Your task to perform on an android device: Show me productivity apps on the Play Store Image 0: 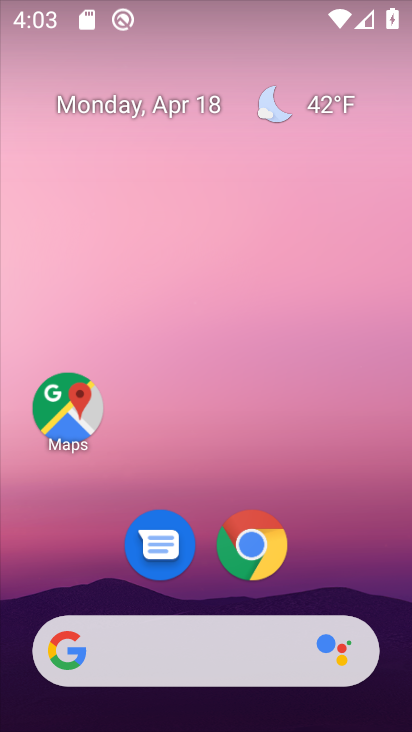
Step 0: drag from (336, 547) to (333, 166)
Your task to perform on an android device: Show me productivity apps on the Play Store Image 1: 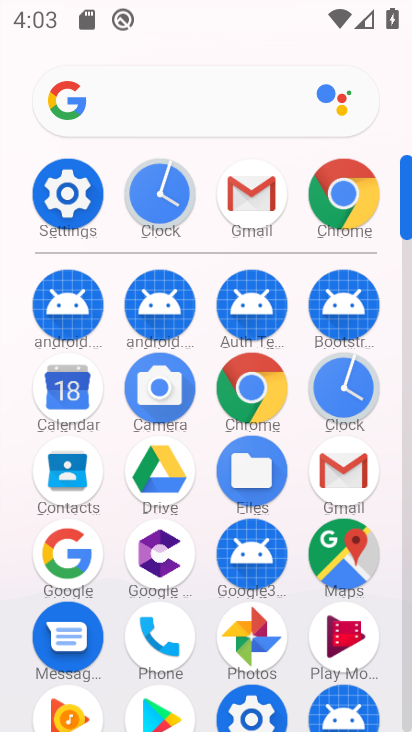
Step 1: drag from (197, 538) to (213, 338)
Your task to perform on an android device: Show me productivity apps on the Play Store Image 2: 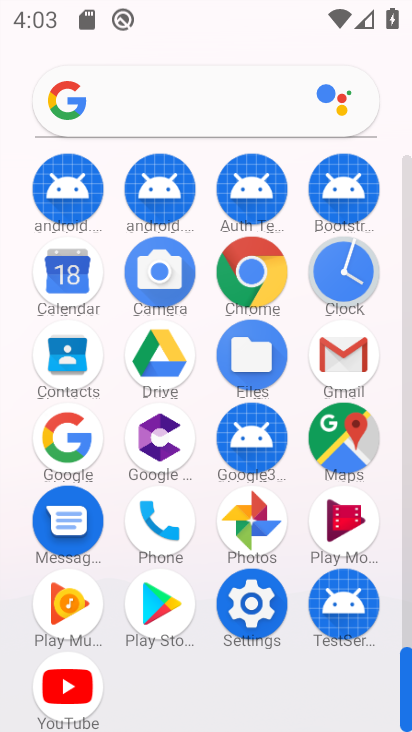
Step 2: click (161, 614)
Your task to perform on an android device: Show me productivity apps on the Play Store Image 3: 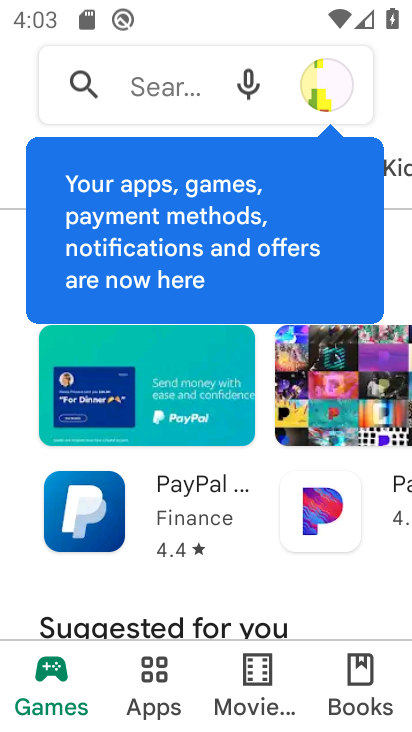
Step 3: click (154, 80)
Your task to perform on an android device: Show me productivity apps on the Play Store Image 4: 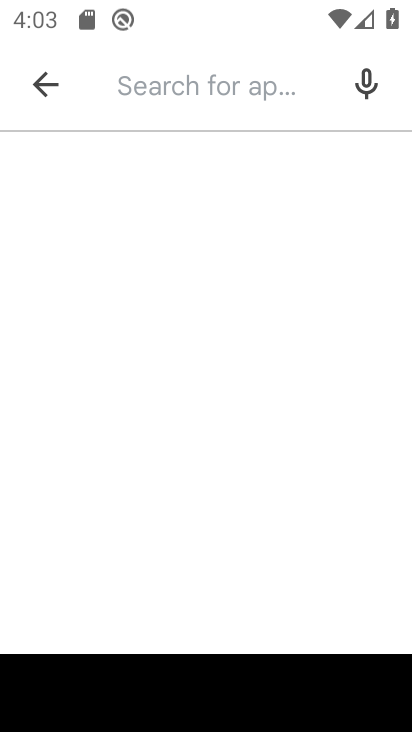
Step 4: type "productivityh"
Your task to perform on an android device: Show me productivity apps on the Play Store Image 5: 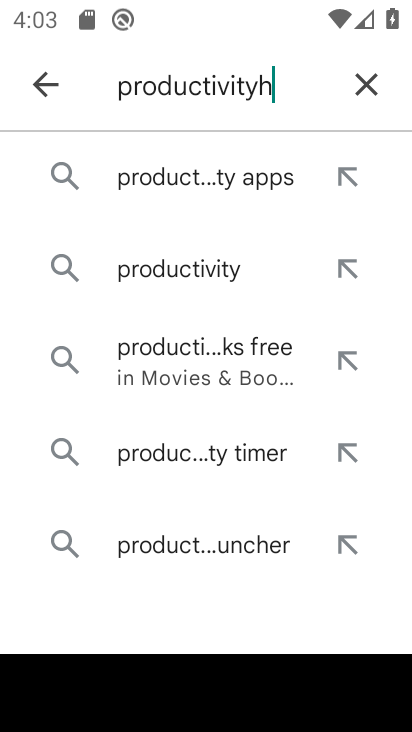
Step 5: click (189, 268)
Your task to perform on an android device: Show me productivity apps on the Play Store Image 6: 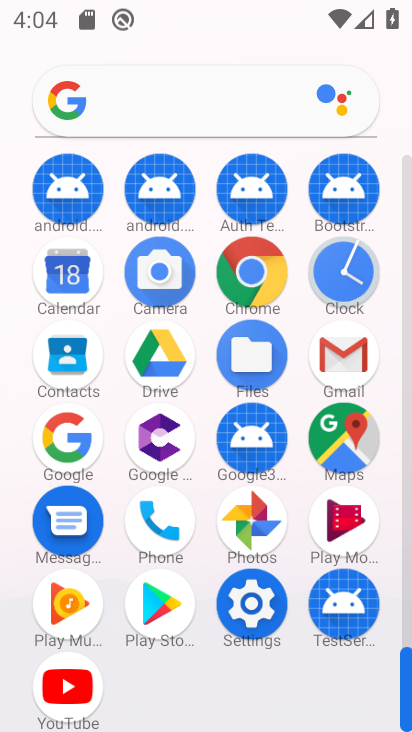
Step 6: task complete